Your task to perform on an android device: What's on my calendar today? Image 0: 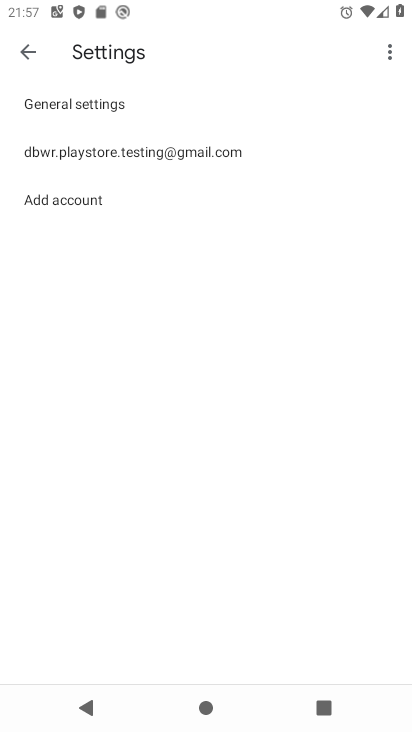
Step 0: press home button
Your task to perform on an android device: What's on my calendar today? Image 1: 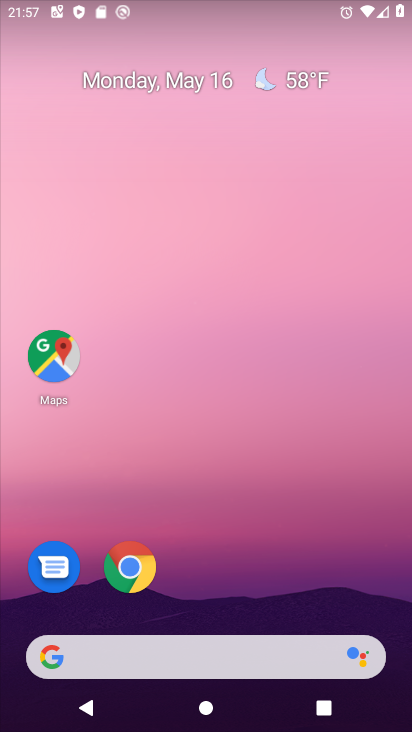
Step 1: drag from (187, 573) to (246, 249)
Your task to perform on an android device: What's on my calendar today? Image 2: 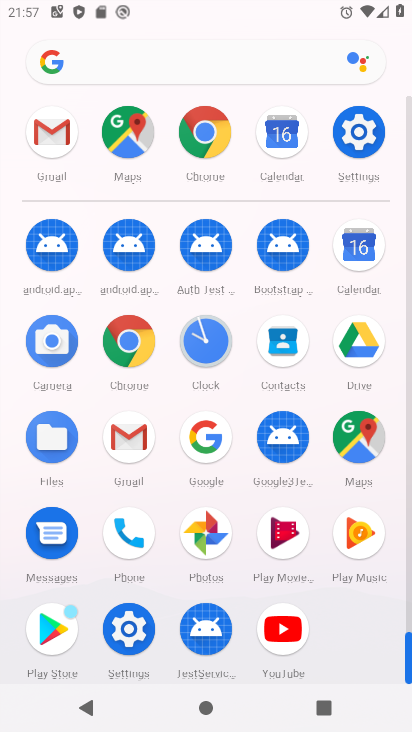
Step 2: click (356, 230)
Your task to perform on an android device: What's on my calendar today? Image 3: 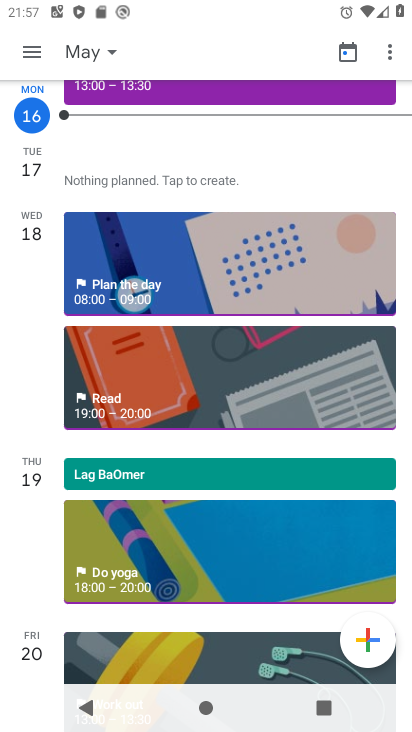
Step 3: task complete